Your task to perform on an android device: change the clock style Image 0: 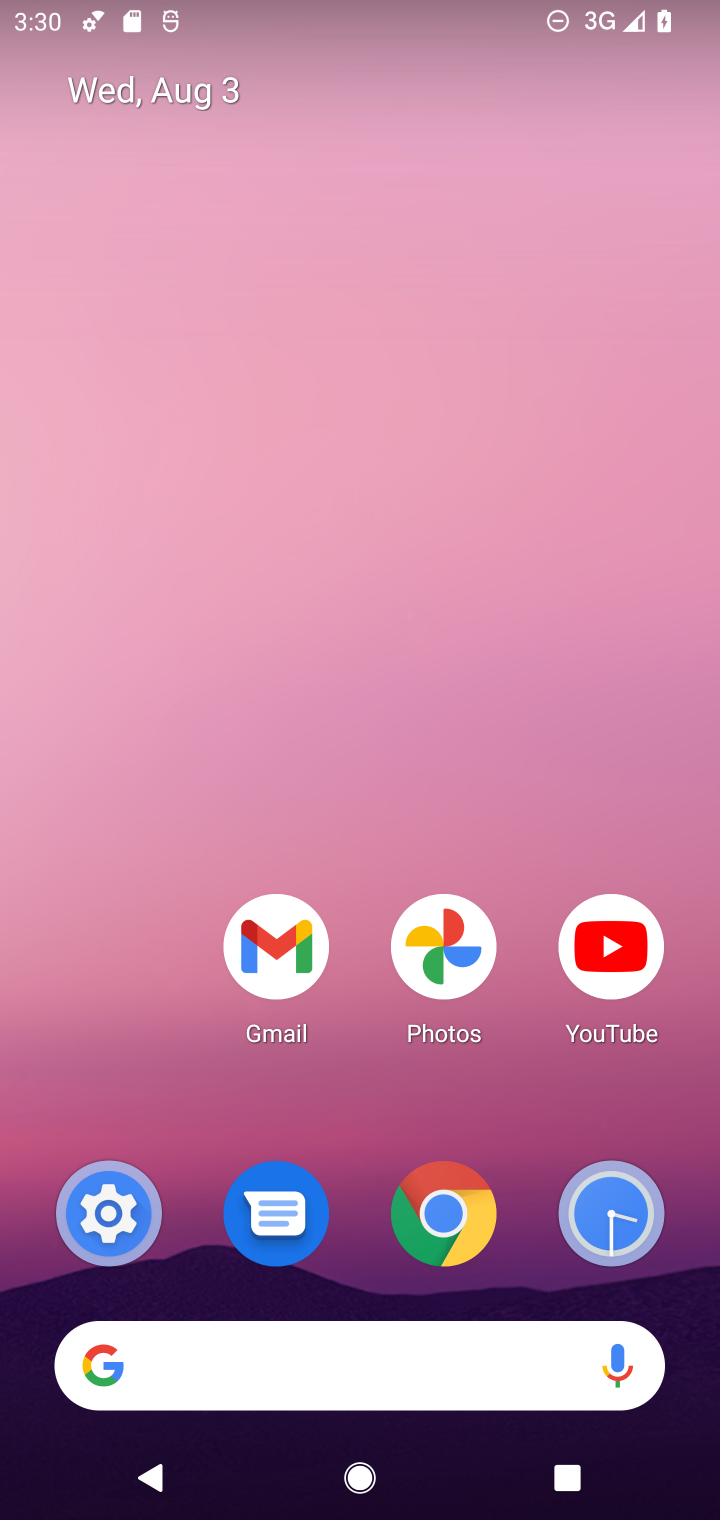
Step 0: drag from (357, 1207) to (400, 381)
Your task to perform on an android device: change the clock style Image 1: 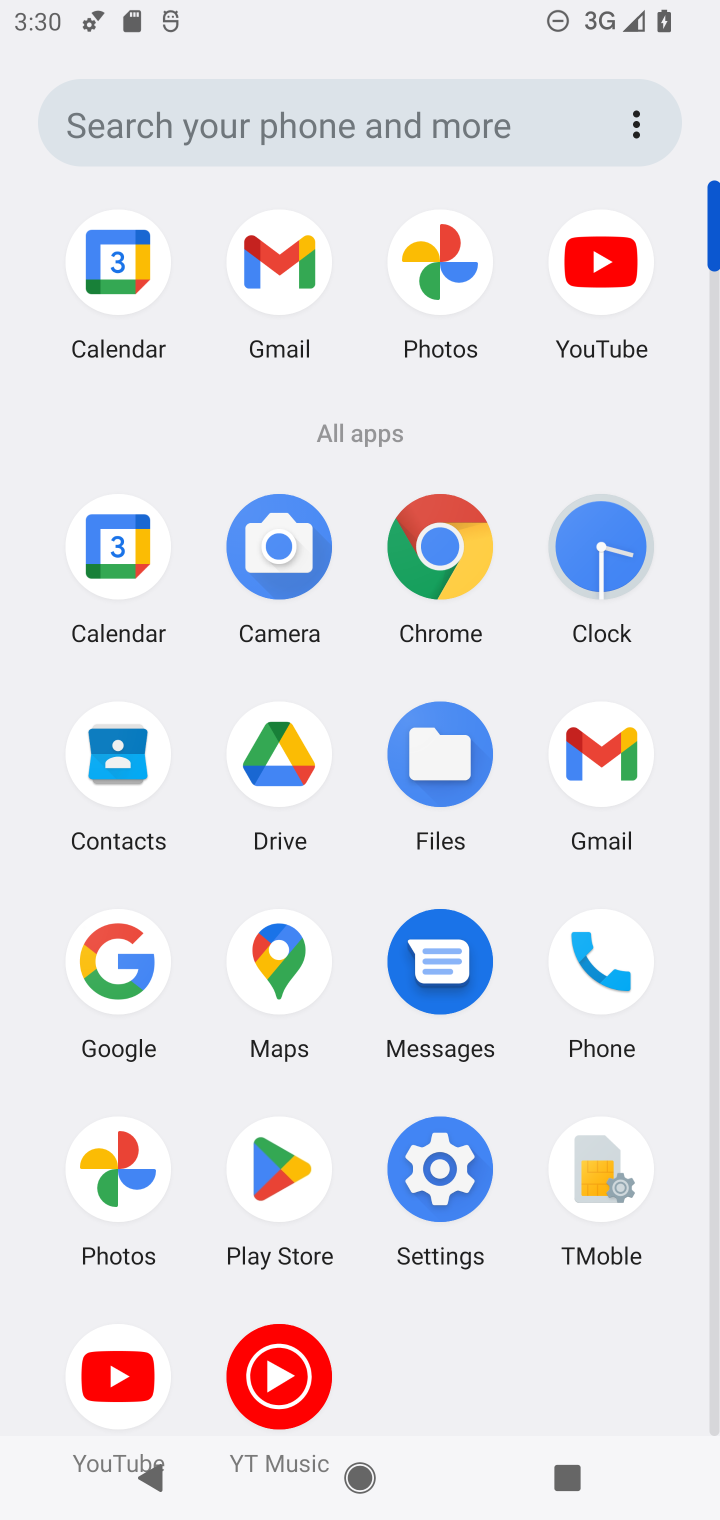
Step 1: click (594, 541)
Your task to perform on an android device: change the clock style Image 2: 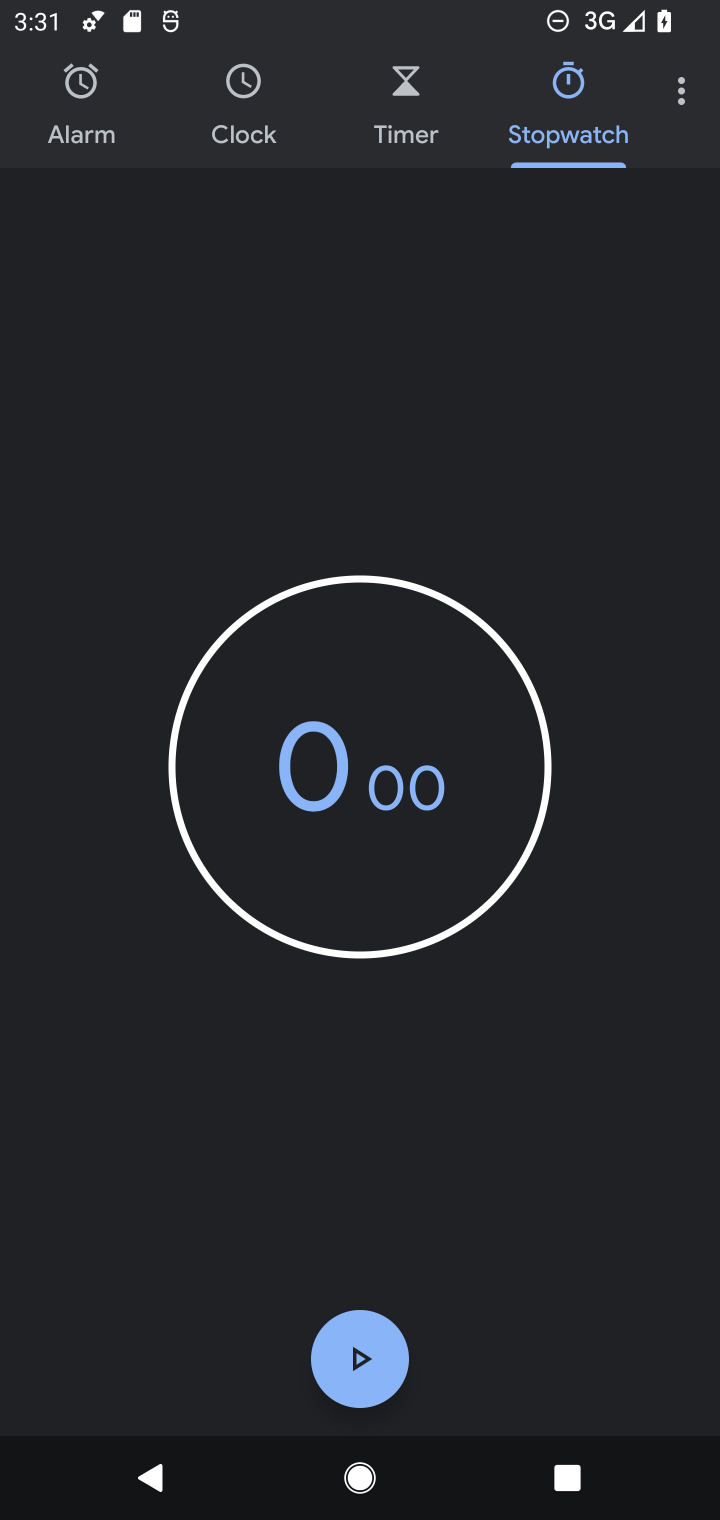
Step 2: click (698, 94)
Your task to perform on an android device: change the clock style Image 3: 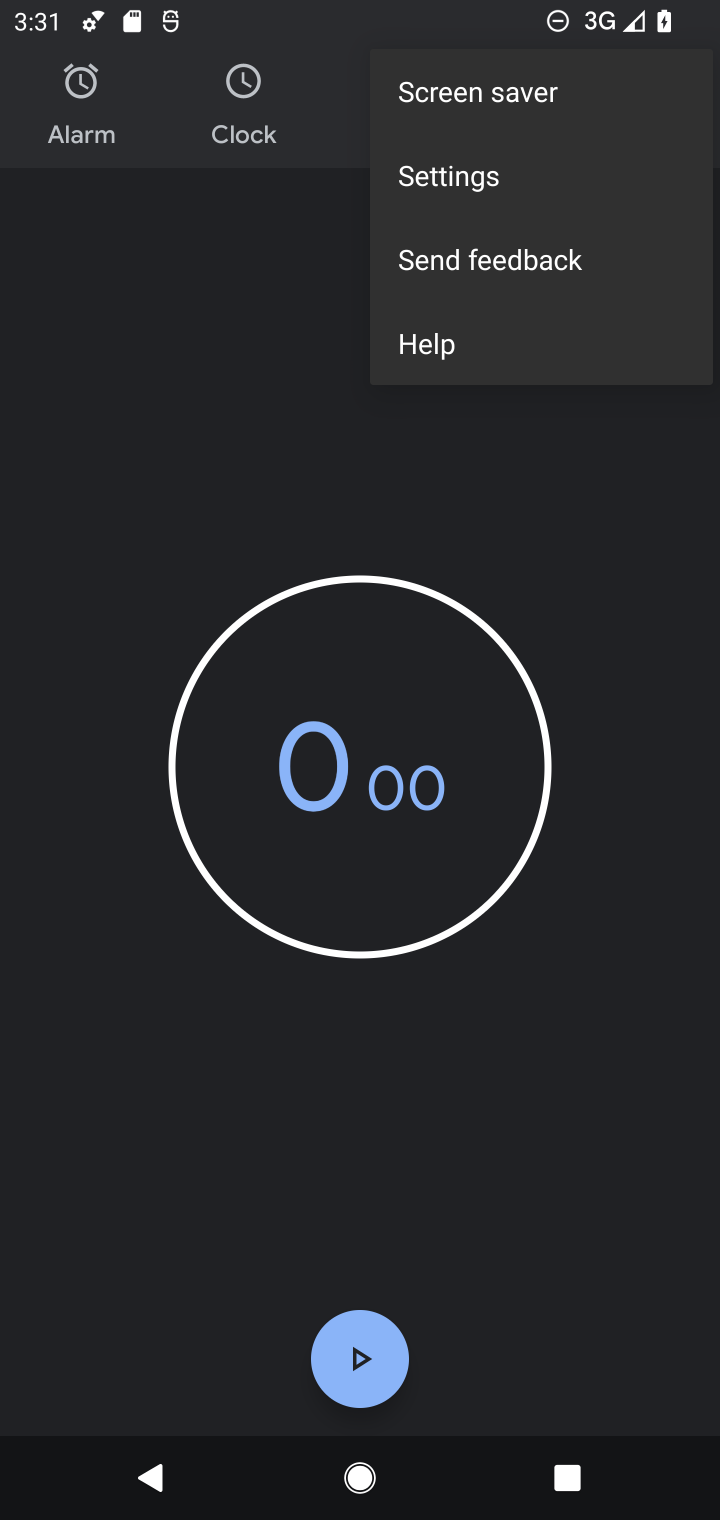
Step 3: click (497, 182)
Your task to perform on an android device: change the clock style Image 4: 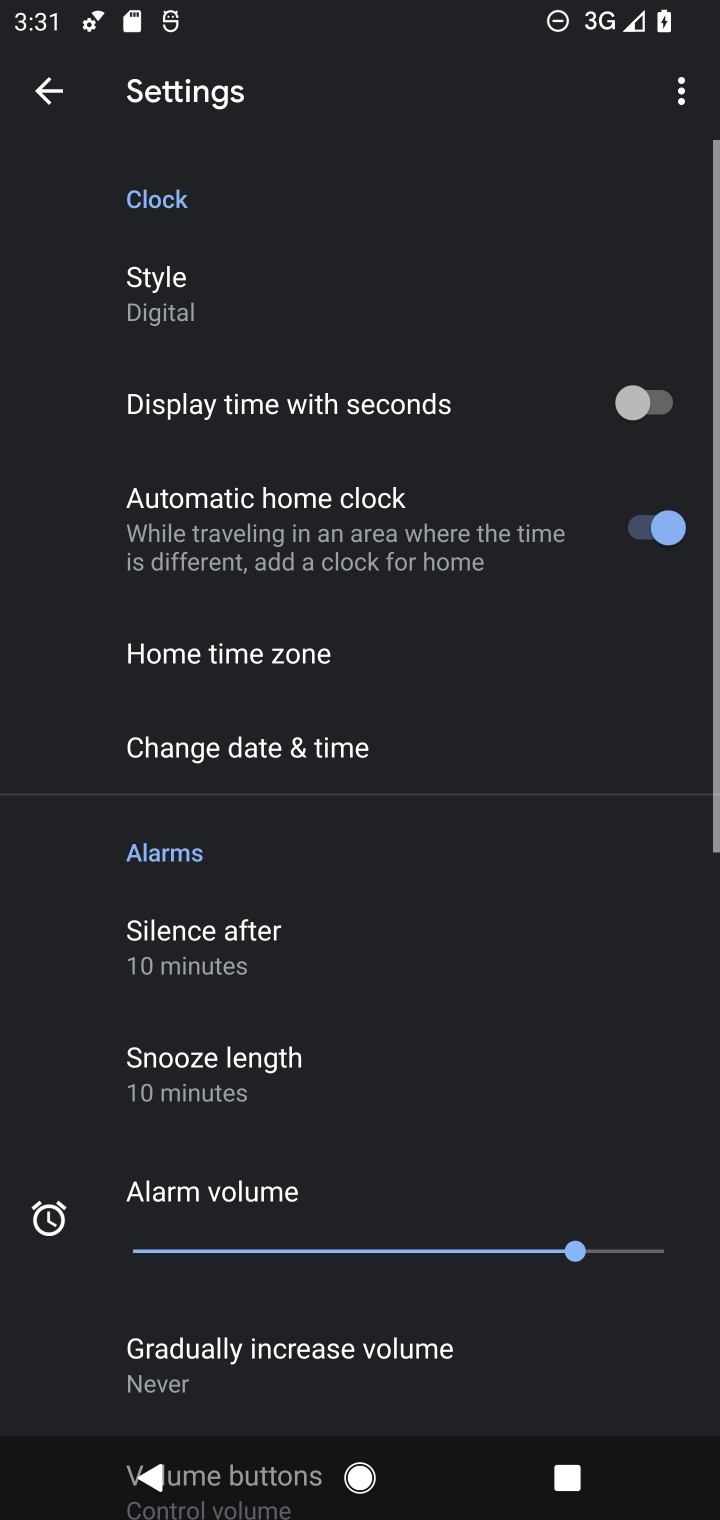
Step 4: click (201, 266)
Your task to perform on an android device: change the clock style Image 5: 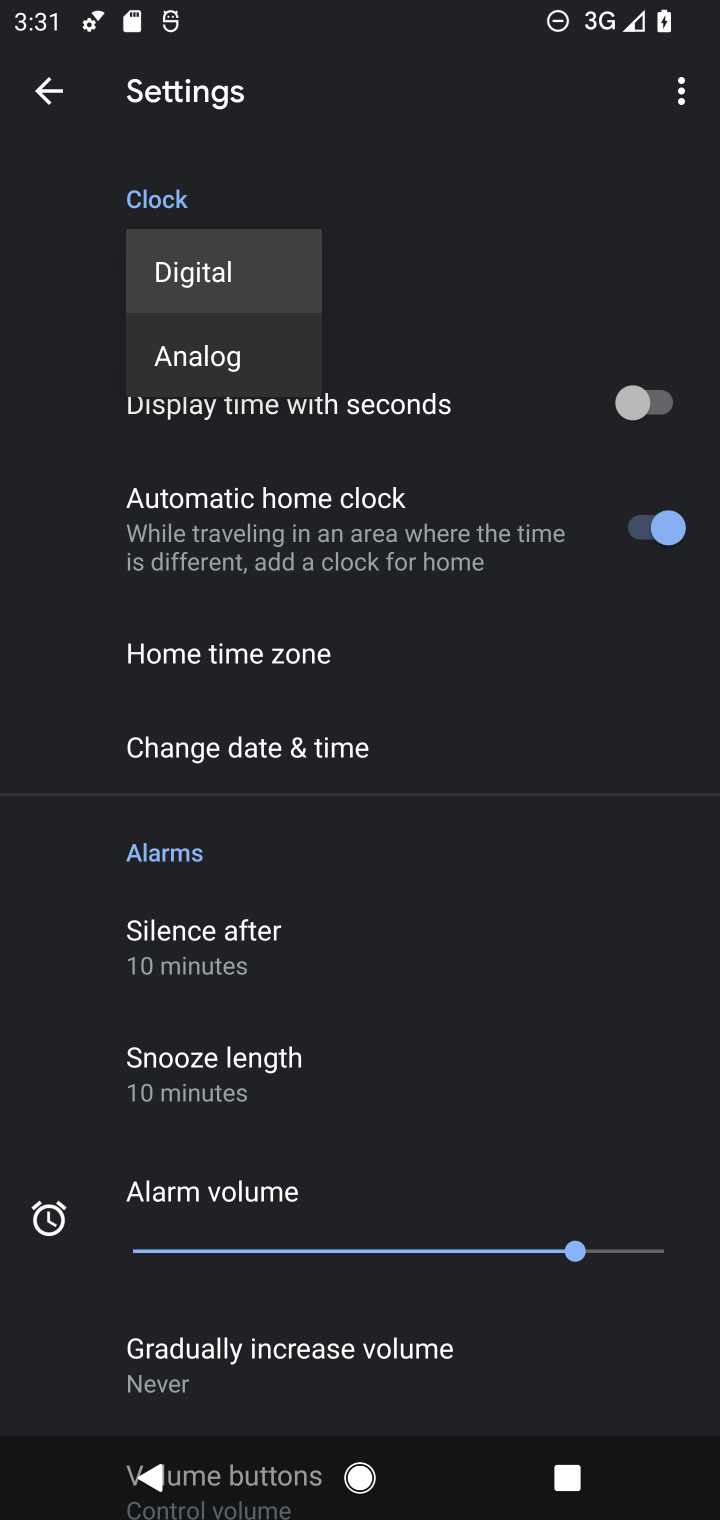
Step 5: click (195, 367)
Your task to perform on an android device: change the clock style Image 6: 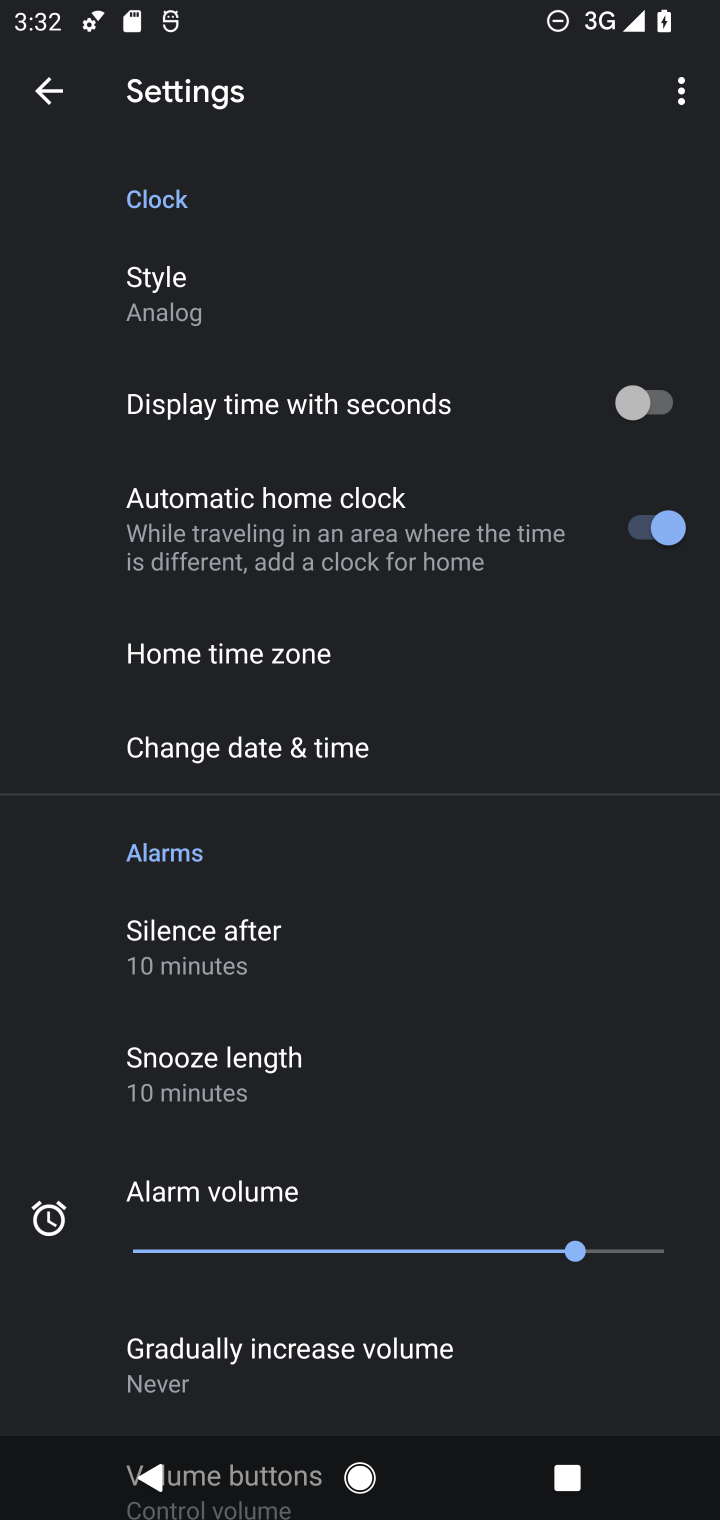
Step 6: task complete